Your task to perform on an android device: change text size in settings app Image 0: 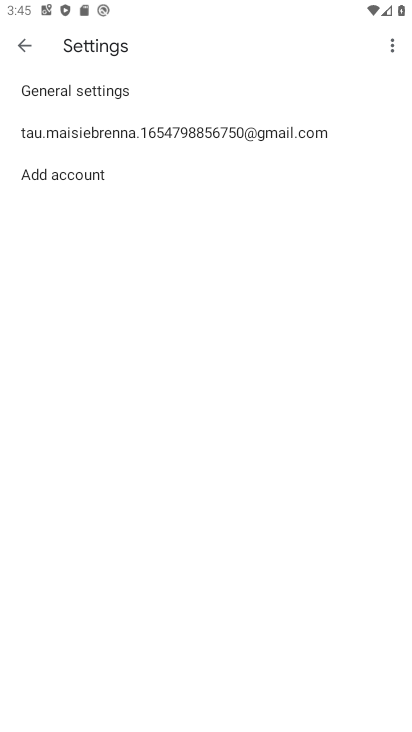
Step 0: press home button
Your task to perform on an android device: change text size in settings app Image 1: 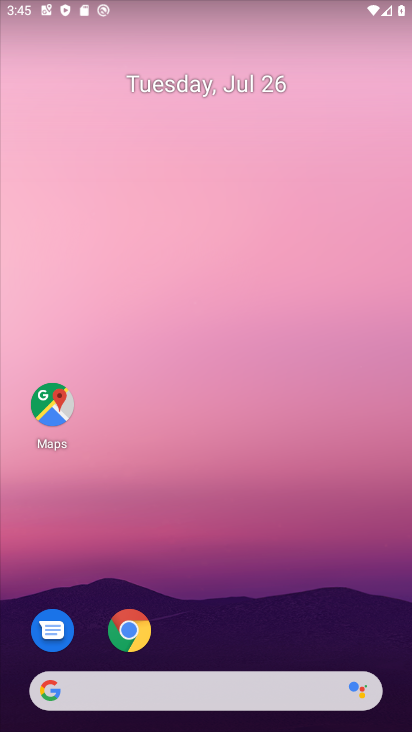
Step 1: drag from (241, 639) to (159, 151)
Your task to perform on an android device: change text size in settings app Image 2: 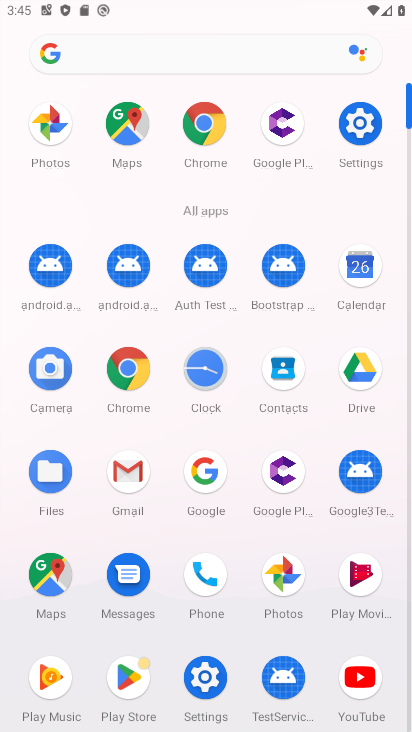
Step 2: click (360, 109)
Your task to perform on an android device: change text size in settings app Image 3: 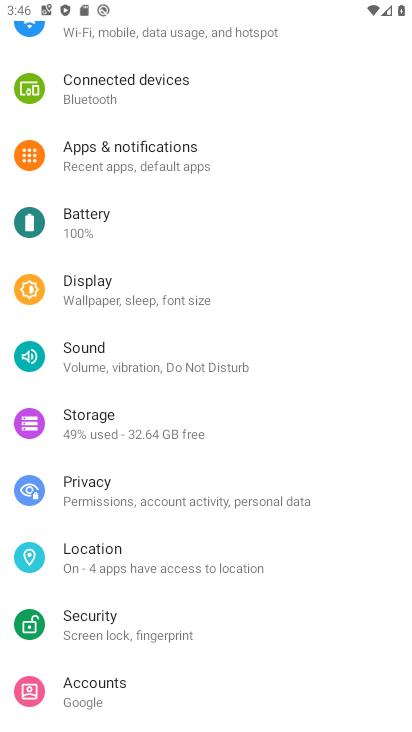
Step 3: click (136, 291)
Your task to perform on an android device: change text size in settings app Image 4: 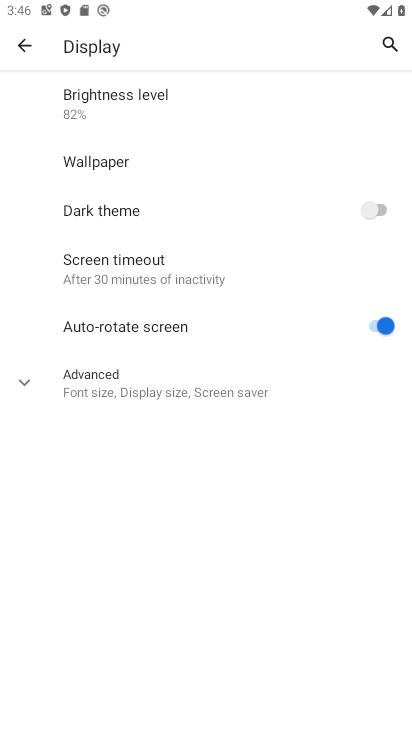
Step 4: click (140, 382)
Your task to perform on an android device: change text size in settings app Image 5: 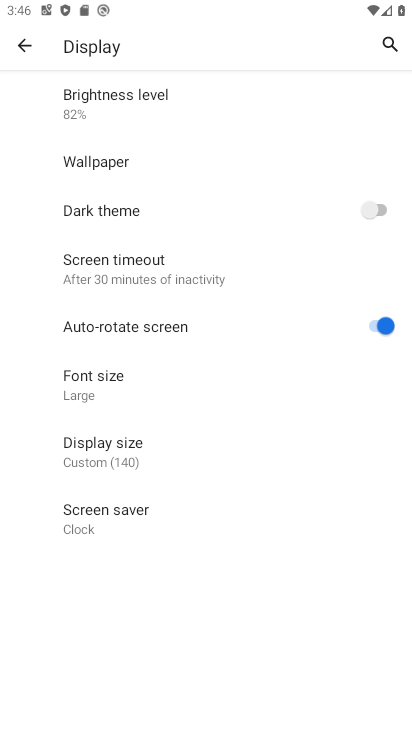
Step 5: click (167, 389)
Your task to perform on an android device: change text size in settings app Image 6: 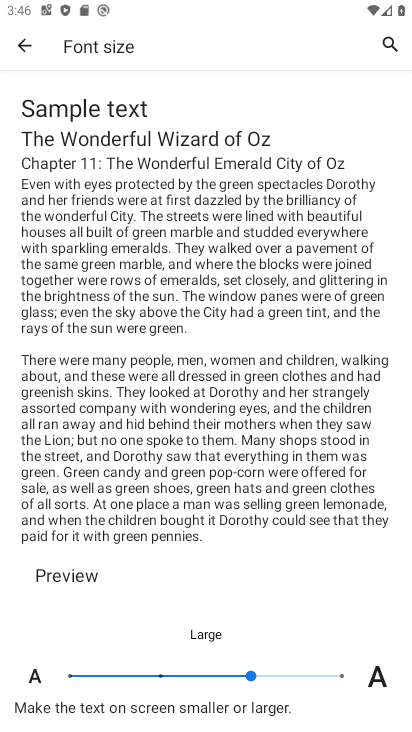
Step 6: click (339, 674)
Your task to perform on an android device: change text size in settings app Image 7: 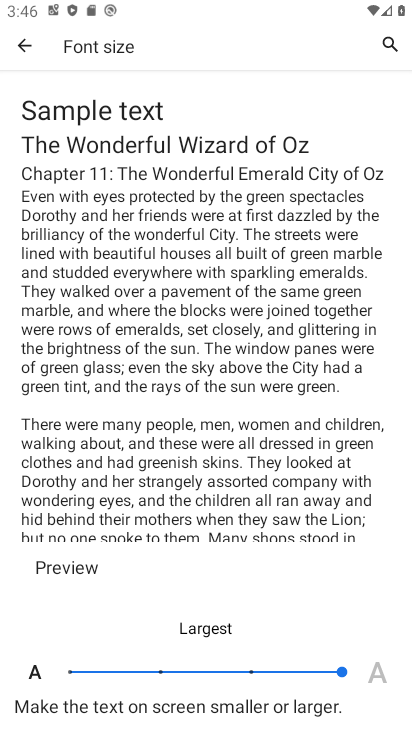
Step 7: task complete